Your task to perform on an android device: Look up the best rated drill on Lowes. Image 0: 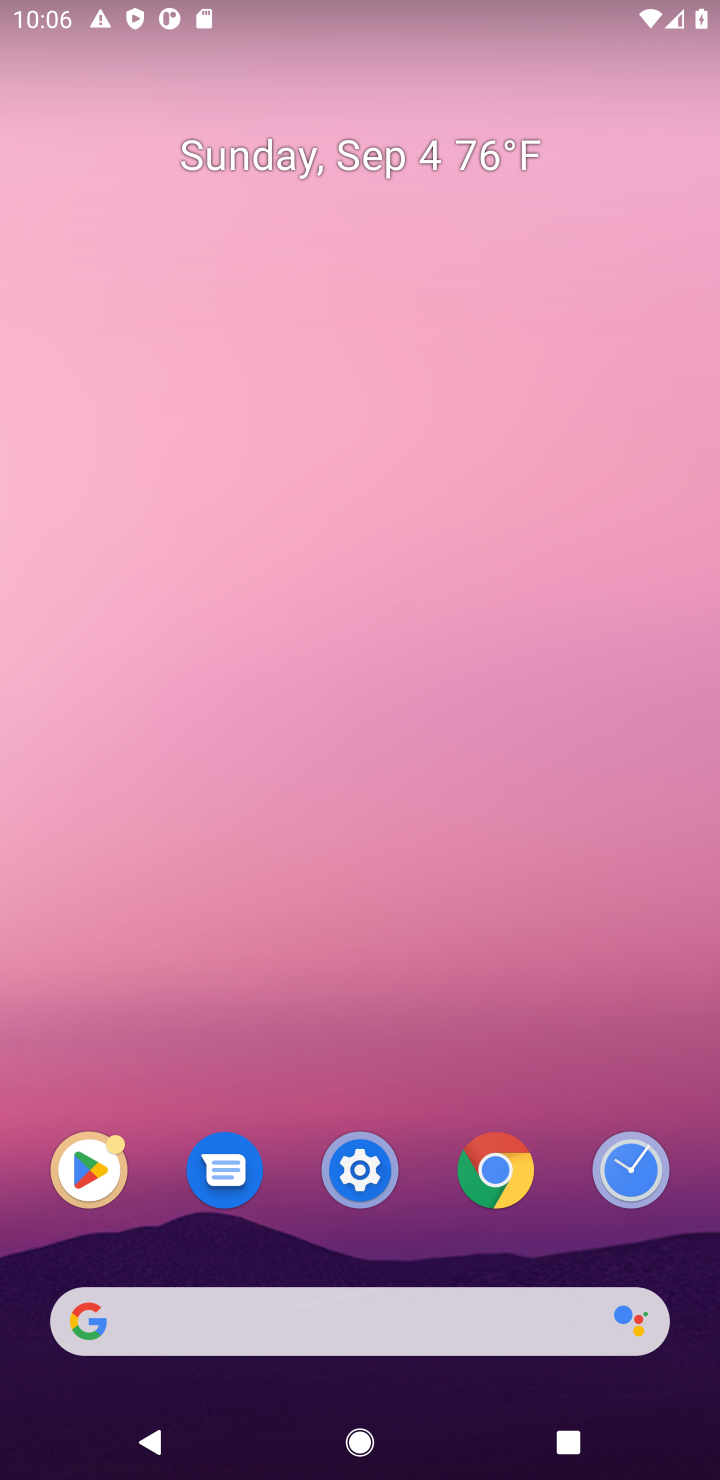
Step 0: click (390, 1317)
Your task to perform on an android device: Look up the best rated drill on Lowes. Image 1: 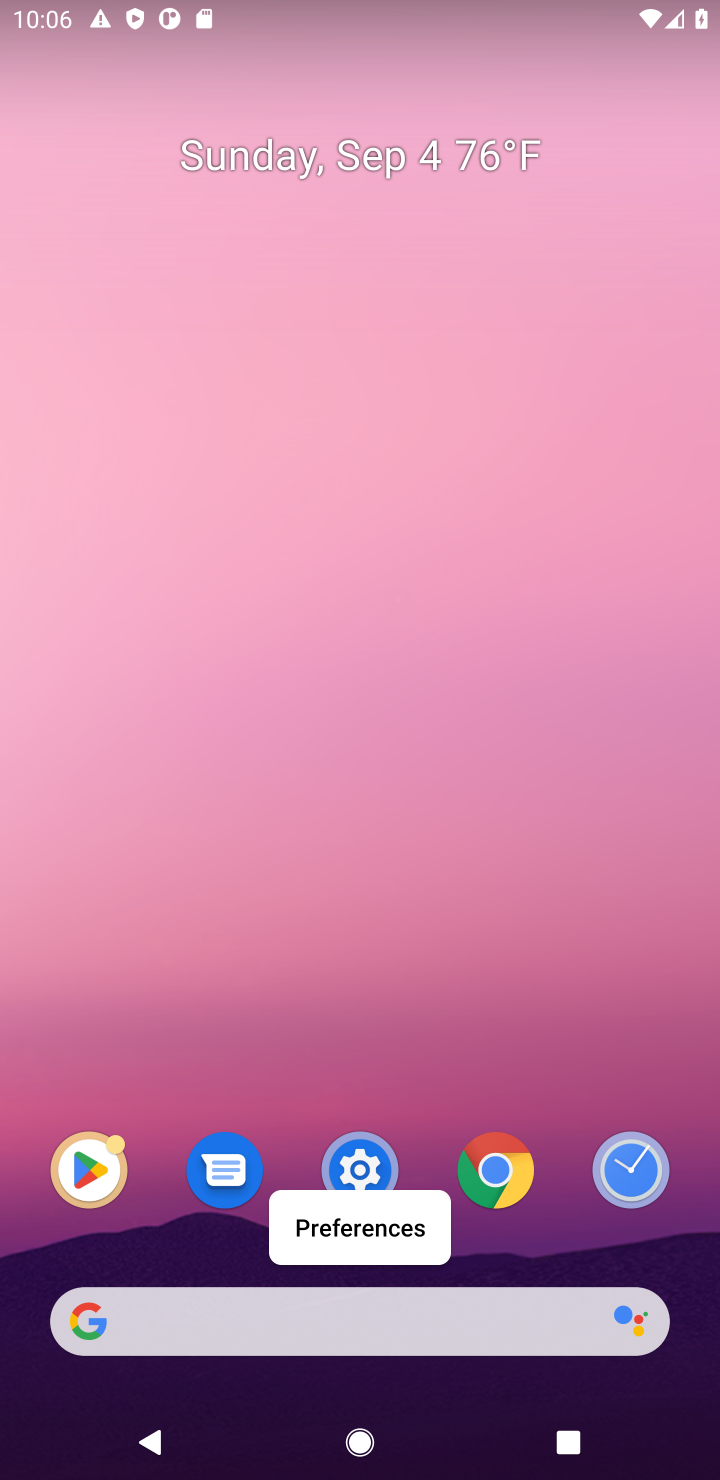
Step 1: click (383, 1314)
Your task to perform on an android device: Look up the best rated drill on Lowes. Image 2: 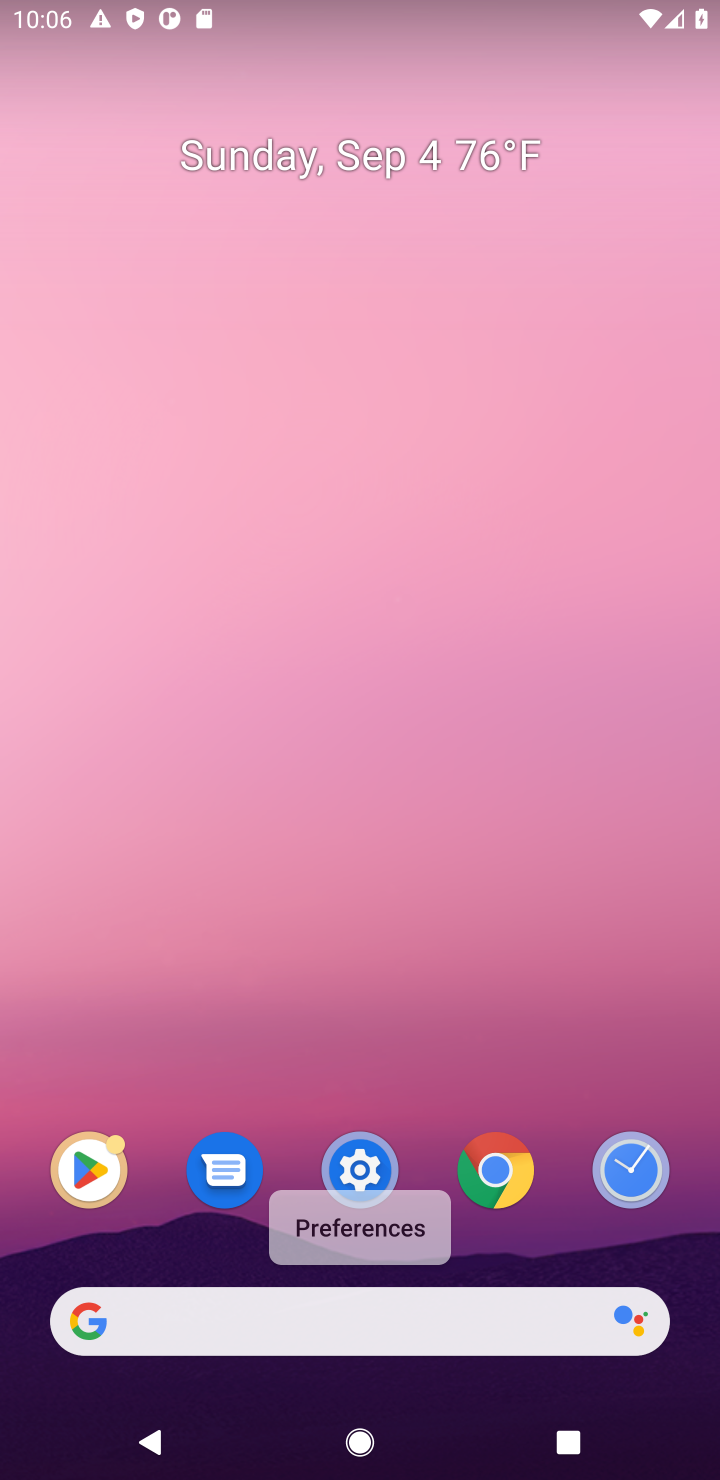
Step 2: click (378, 1314)
Your task to perform on an android device: Look up the best rated drill on Lowes. Image 3: 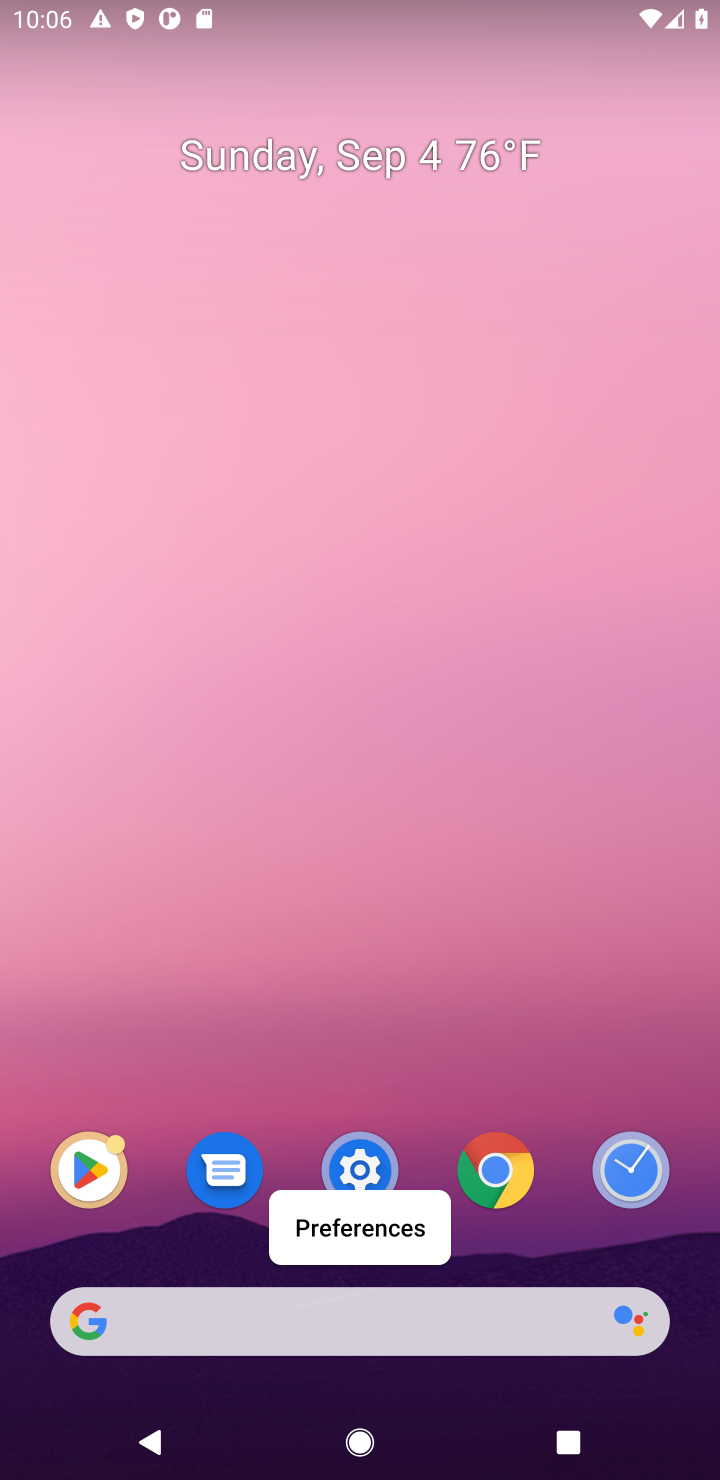
Step 3: click (388, 1312)
Your task to perform on an android device: Look up the best rated drill on Lowes. Image 4: 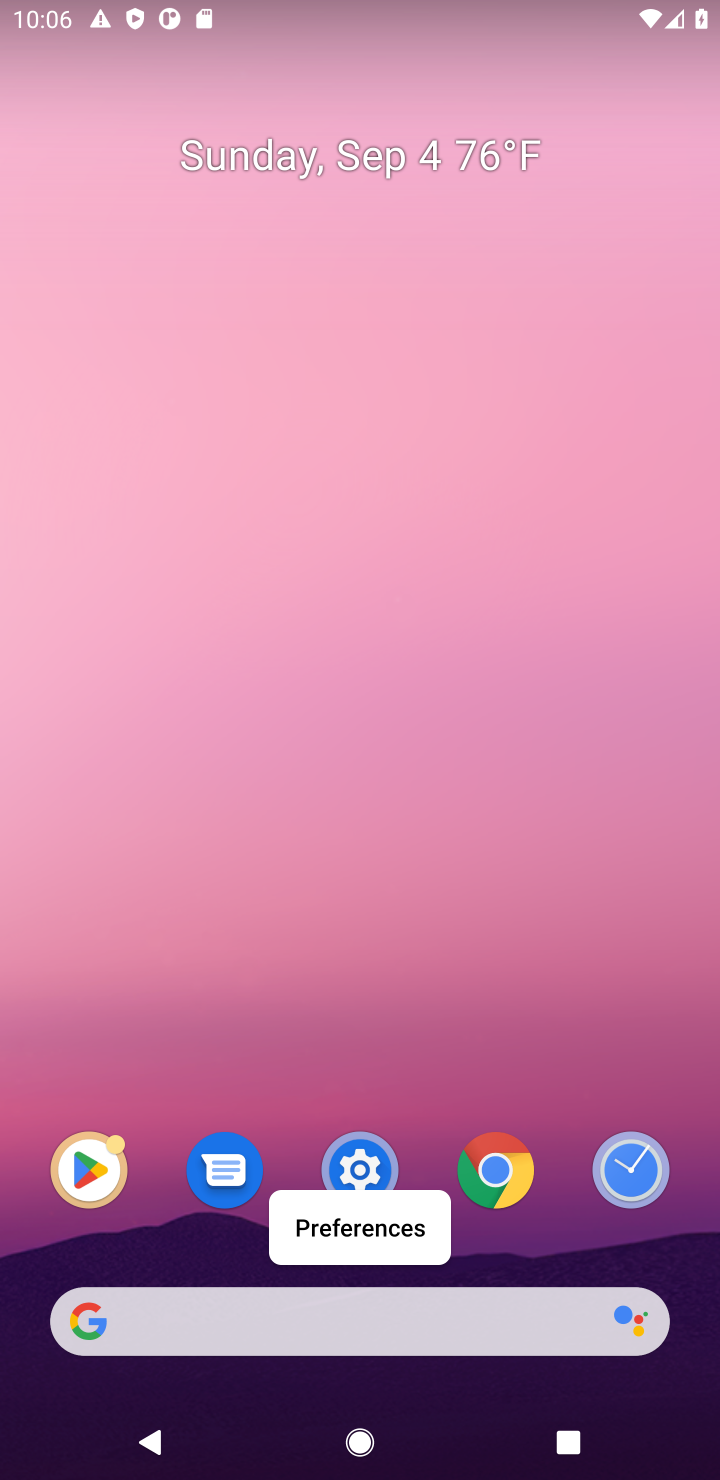
Step 4: click (388, 1312)
Your task to perform on an android device: Look up the best rated drill on Lowes. Image 5: 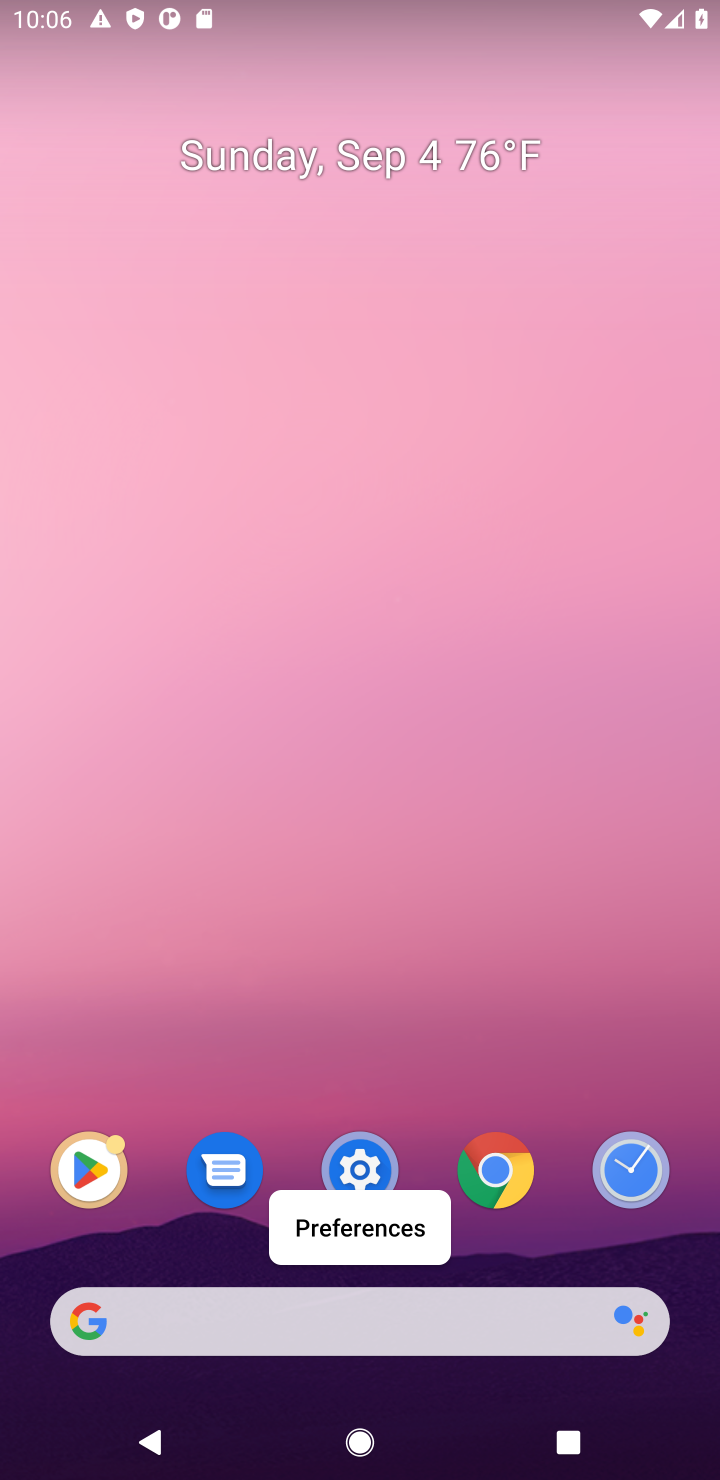
Step 5: click (309, 1315)
Your task to perform on an android device: Look up the best rated drill on Lowes. Image 6: 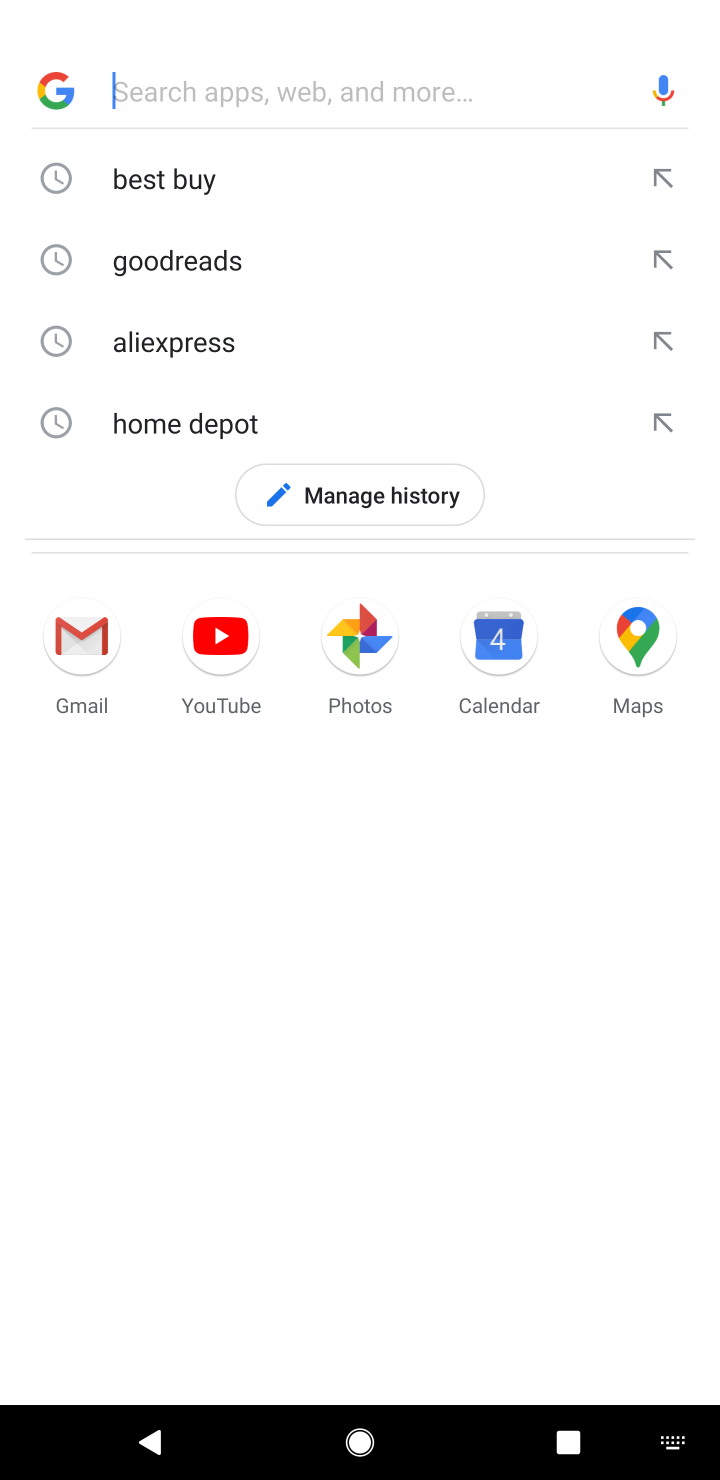
Step 6: type "Lowes"
Your task to perform on an android device: Look up the best rated drill on Lowes. Image 7: 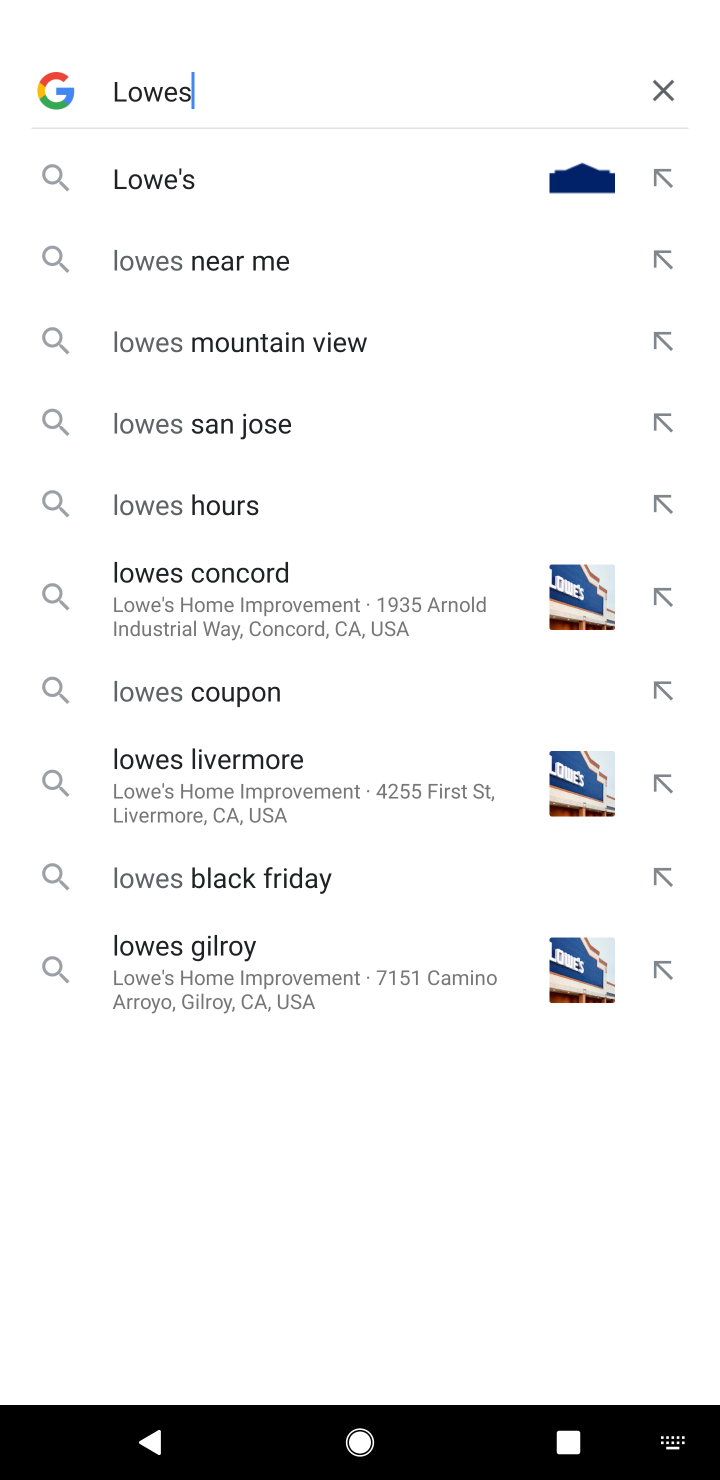
Step 7: click (309, 186)
Your task to perform on an android device: Look up the best rated drill on Lowes. Image 8: 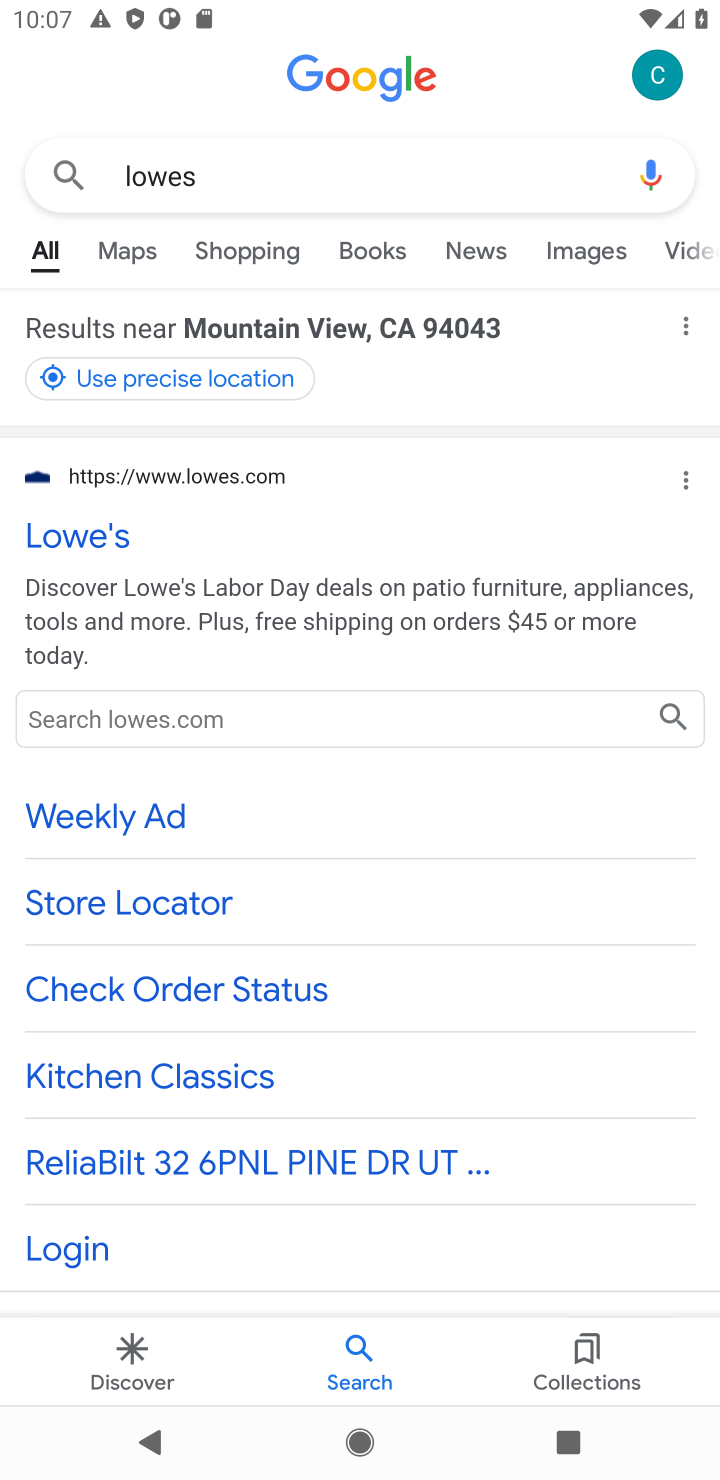
Step 8: click (83, 515)
Your task to perform on an android device: Look up the best rated drill on Lowes. Image 9: 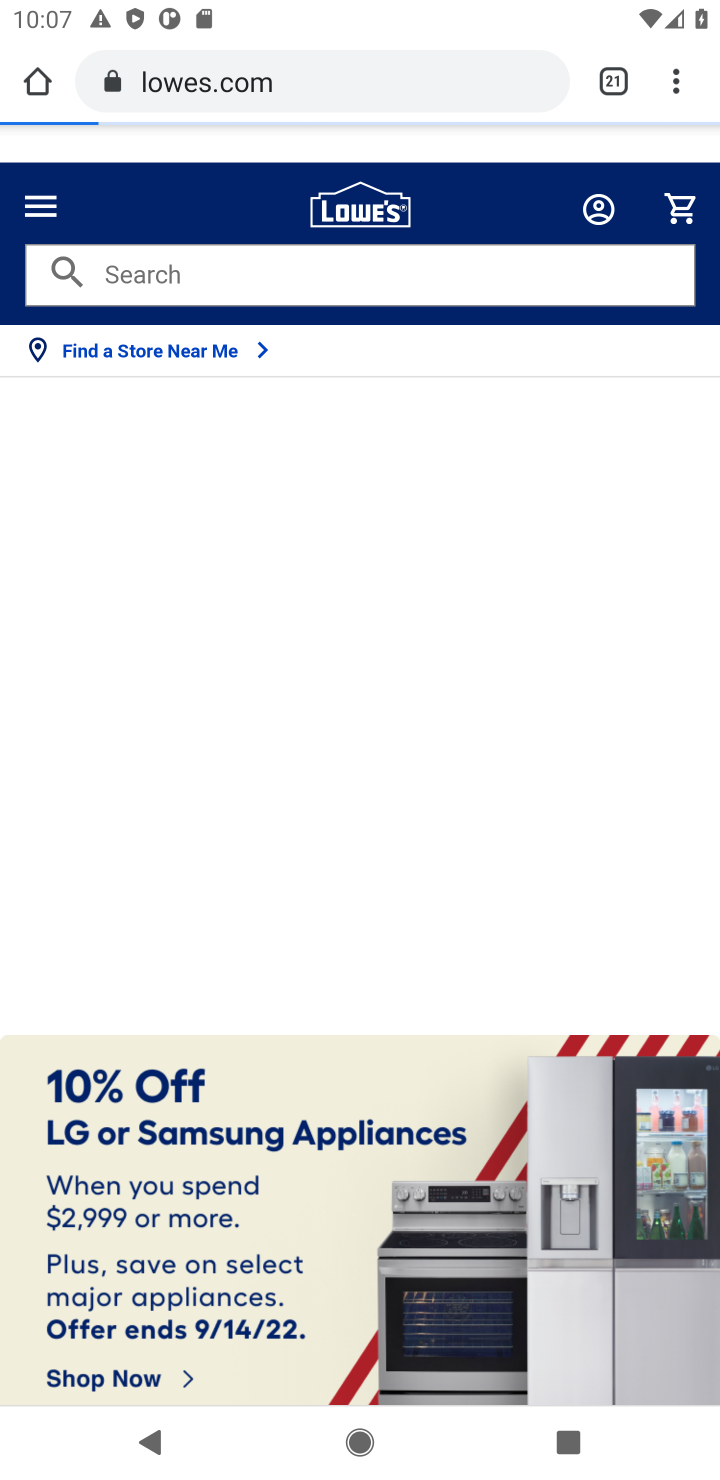
Step 9: click (313, 289)
Your task to perform on an android device: Look up the best rated drill on Lowes. Image 10: 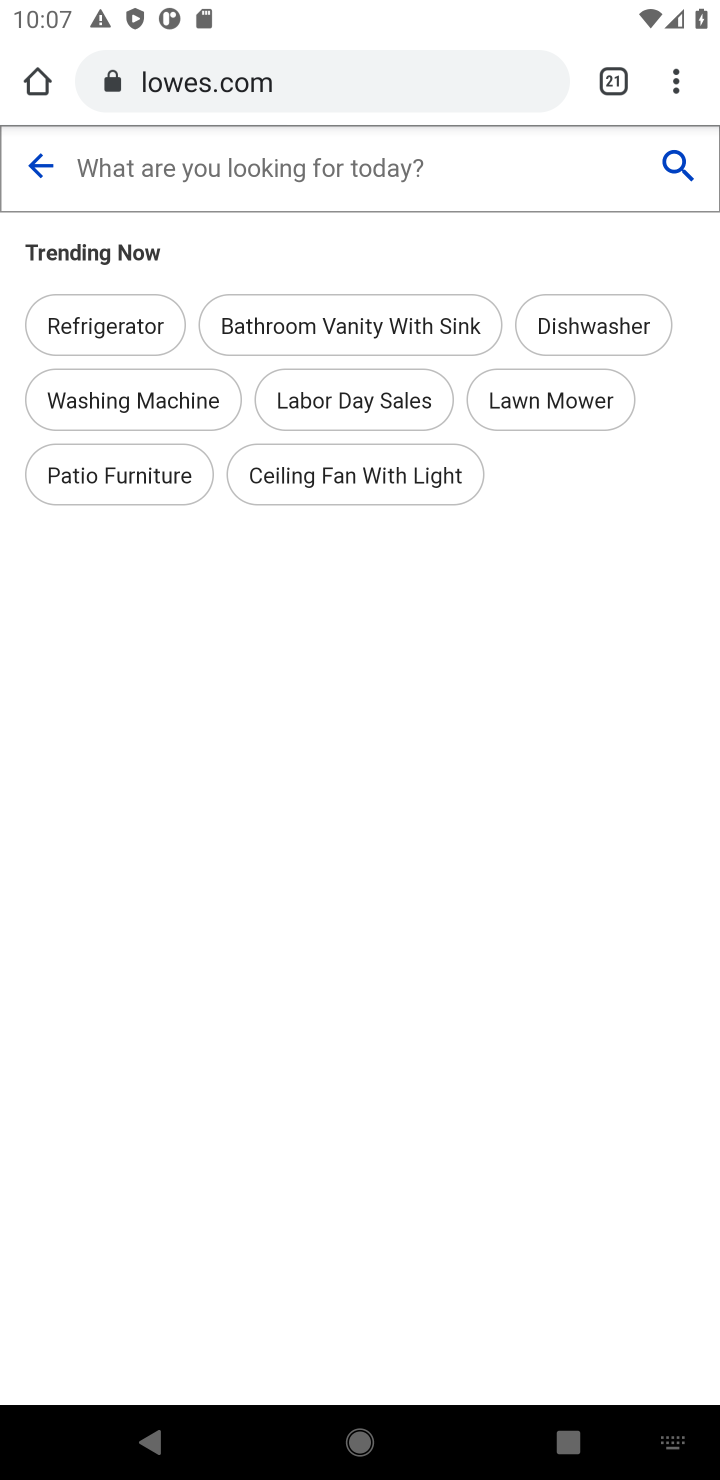
Step 10: type "drill"
Your task to perform on an android device: Look up the best rated drill on Lowes. Image 11: 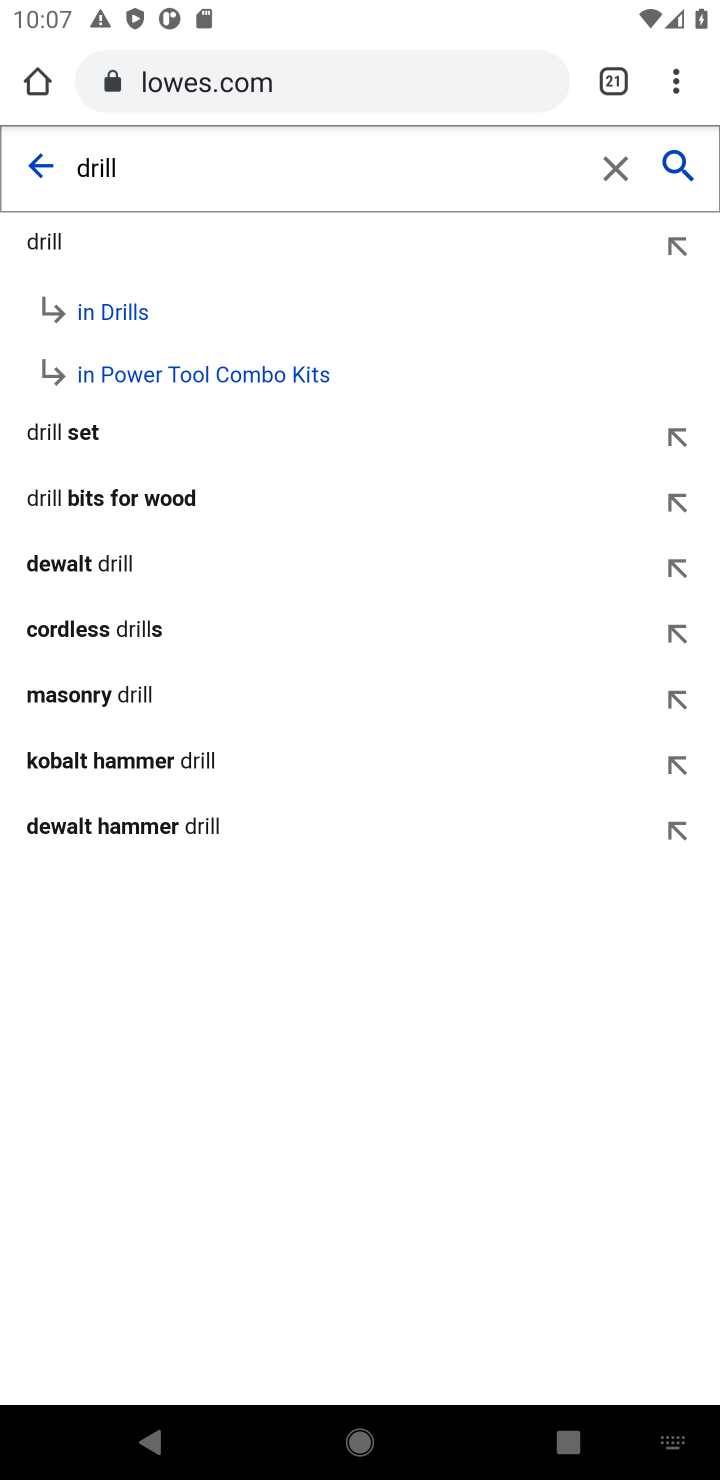
Step 11: click (126, 242)
Your task to perform on an android device: Look up the best rated drill on Lowes. Image 12: 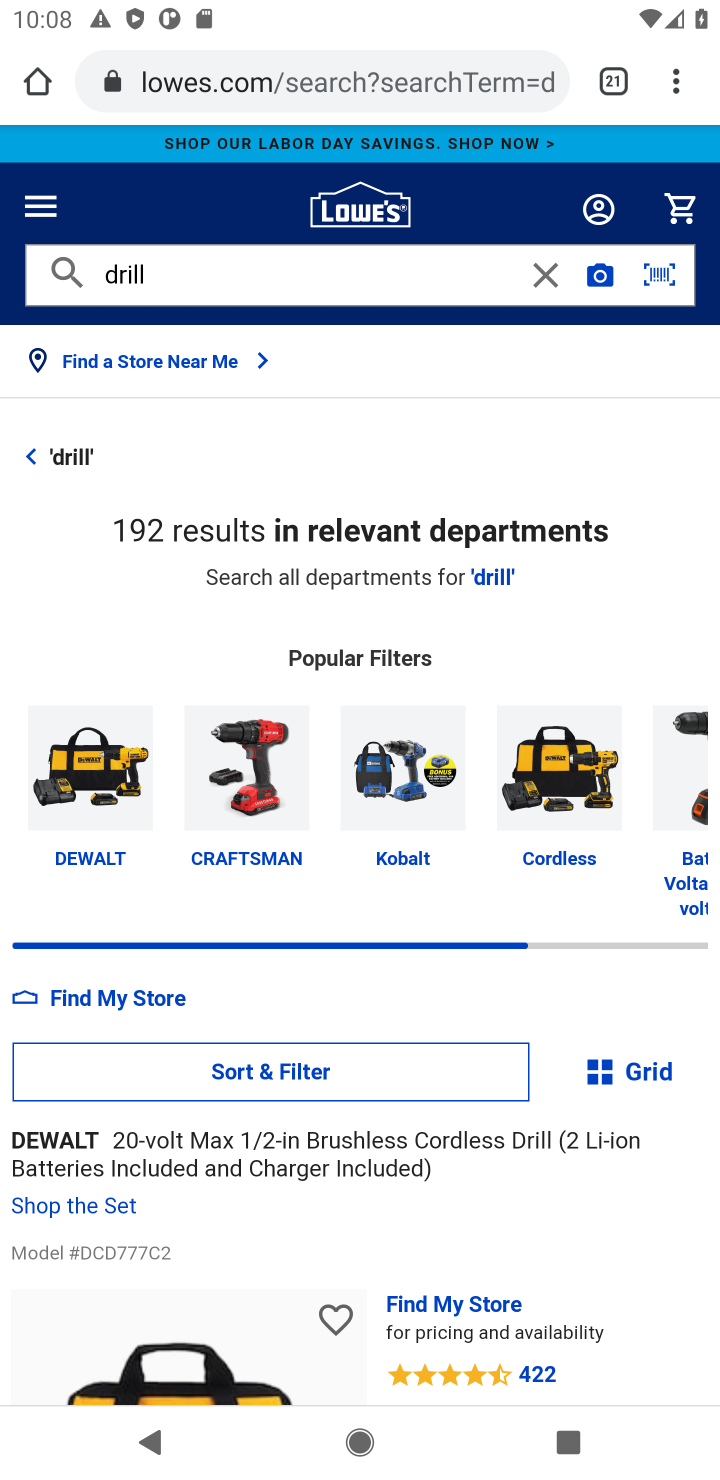
Step 12: task complete